Your task to perform on an android device: What's on my calendar today? Image 0: 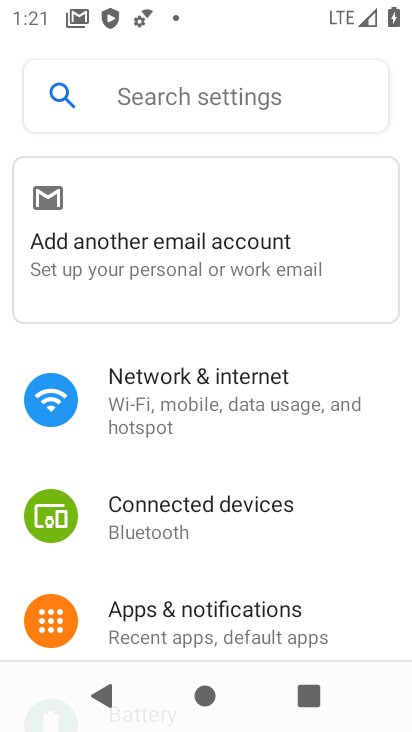
Step 0: press home button
Your task to perform on an android device: What's on my calendar today? Image 1: 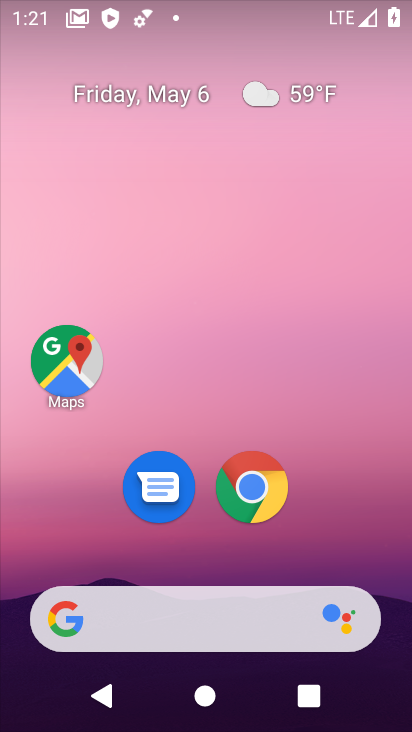
Step 1: drag from (172, 582) to (192, 149)
Your task to perform on an android device: What's on my calendar today? Image 2: 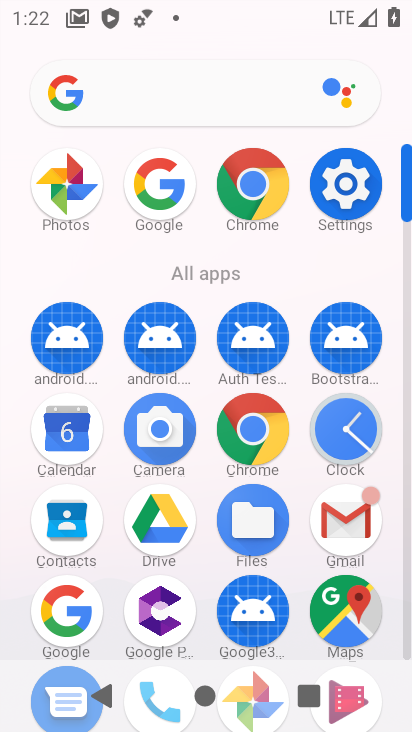
Step 2: drag from (196, 492) to (221, 188)
Your task to perform on an android device: What's on my calendar today? Image 3: 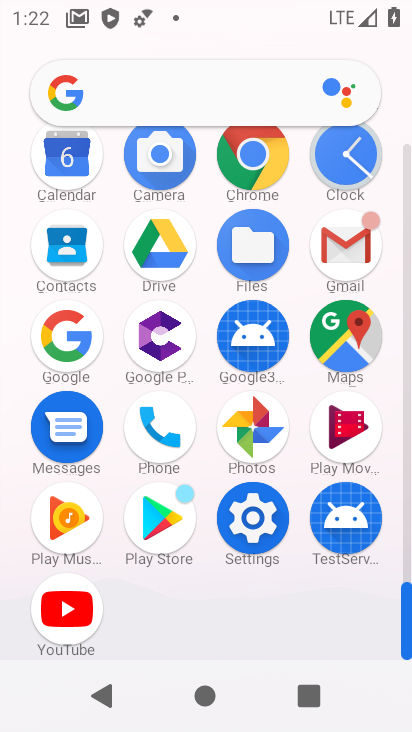
Step 3: click (57, 187)
Your task to perform on an android device: What's on my calendar today? Image 4: 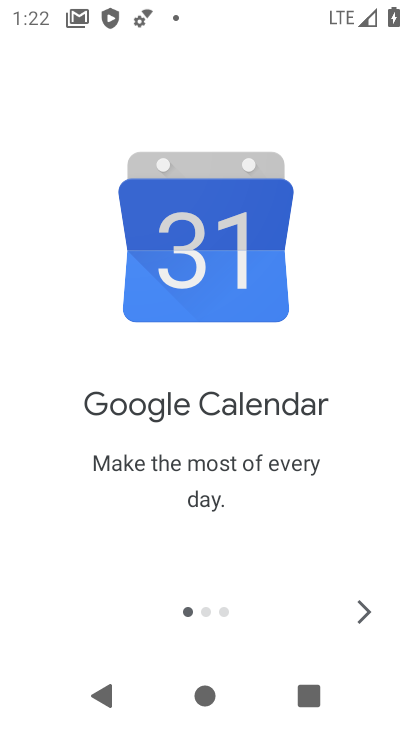
Step 4: click (366, 612)
Your task to perform on an android device: What's on my calendar today? Image 5: 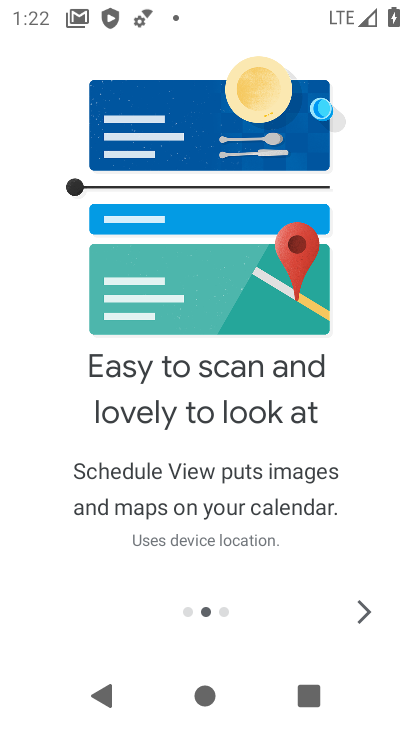
Step 5: click (361, 609)
Your task to perform on an android device: What's on my calendar today? Image 6: 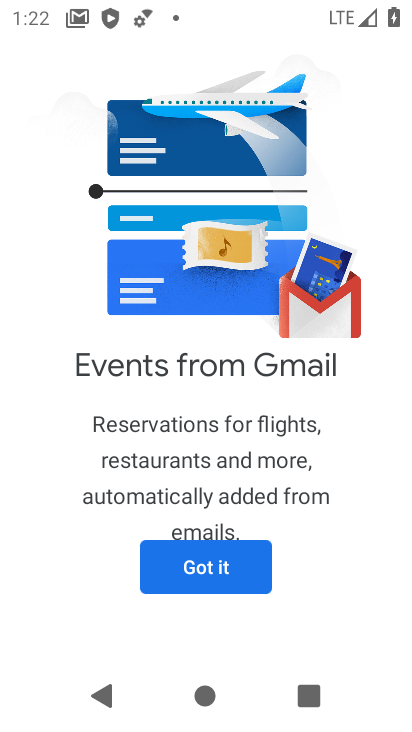
Step 6: click (240, 590)
Your task to perform on an android device: What's on my calendar today? Image 7: 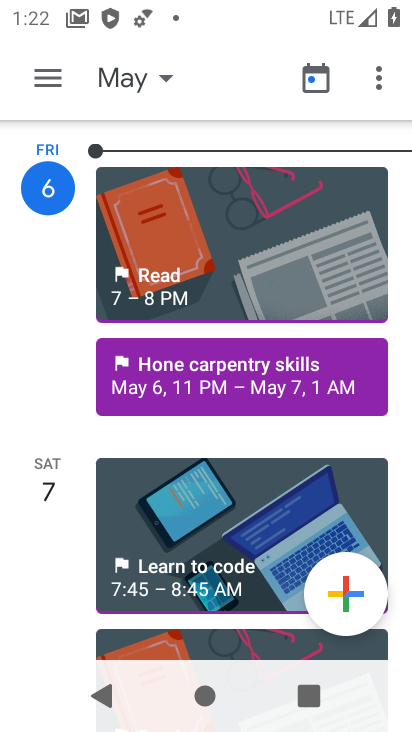
Step 7: task complete